Your task to perform on an android device: open the mobile data screen to see how much data has been used Image 0: 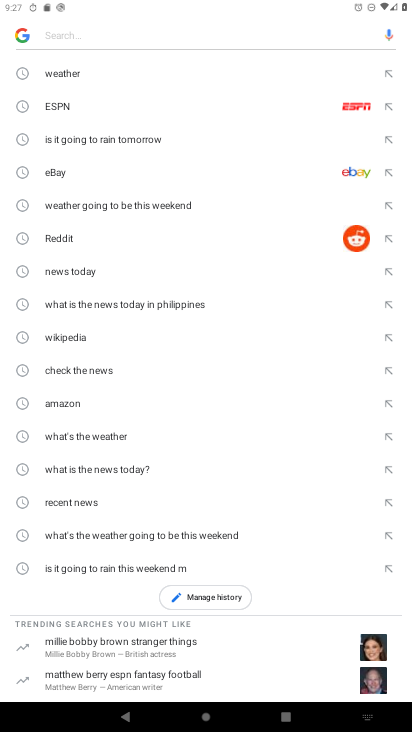
Step 0: press home button
Your task to perform on an android device: open the mobile data screen to see how much data has been used Image 1: 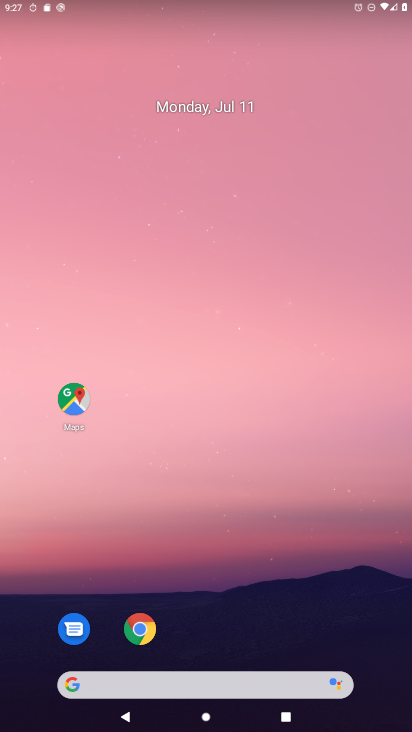
Step 1: drag from (224, 645) to (317, 22)
Your task to perform on an android device: open the mobile data screen to see how much data has been used Image 2: 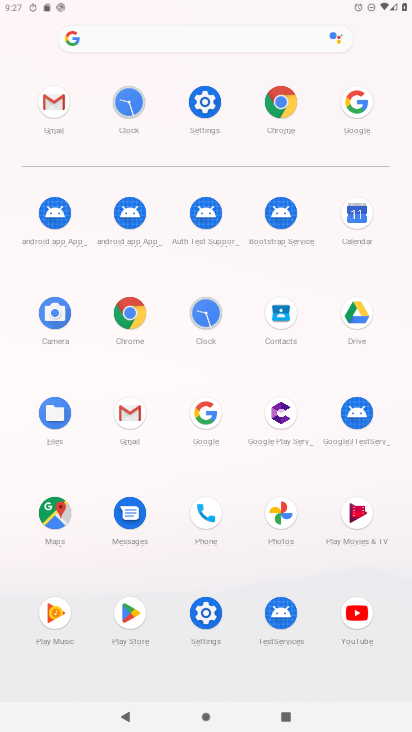
Step 2: click (207, 102)
Your task to perform on an android device: open the mobile data screen to see how much data has been used Image 3: 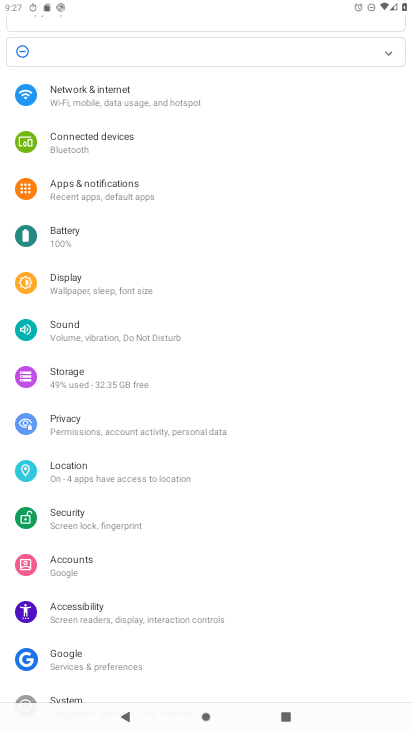
Step 3: click (132, 97)
Your task to perform on an android device: open the mobile data screen to see how much data has been used Image 4: 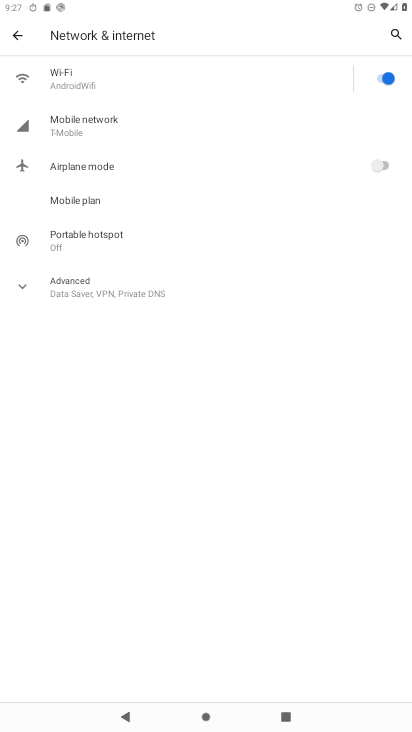
Step 4: click (123, 119)
Your task to perform on an android device: open the mobile data screen to see how much data has been used Image 5: 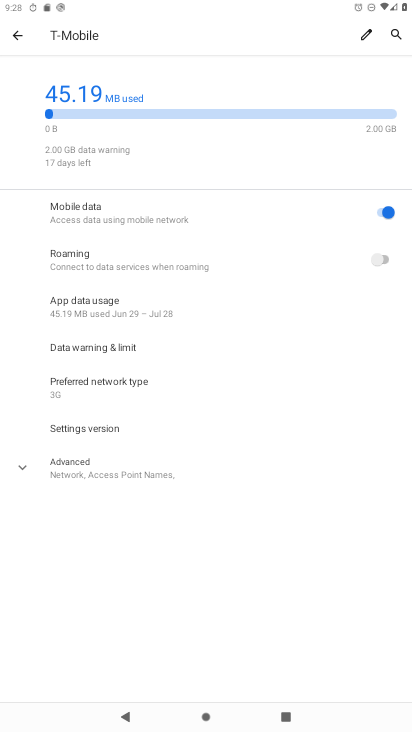
Step 5: task complete